Your task to perform on an android device: uninstall "PlayWell" Image 0: 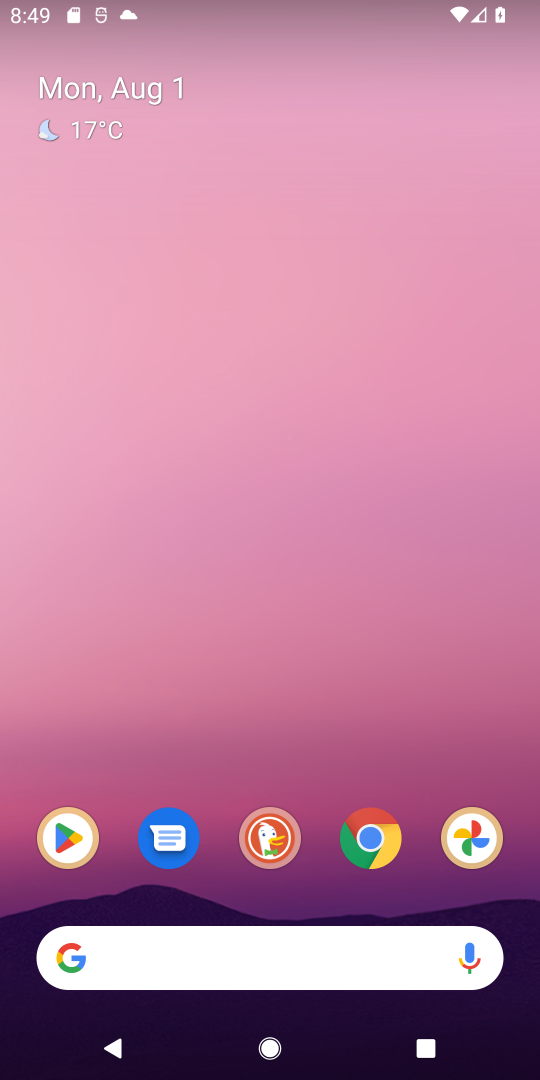
Step 0: press home button
Your task to perform on an android device: uninstall "PlayWell" Image 1: 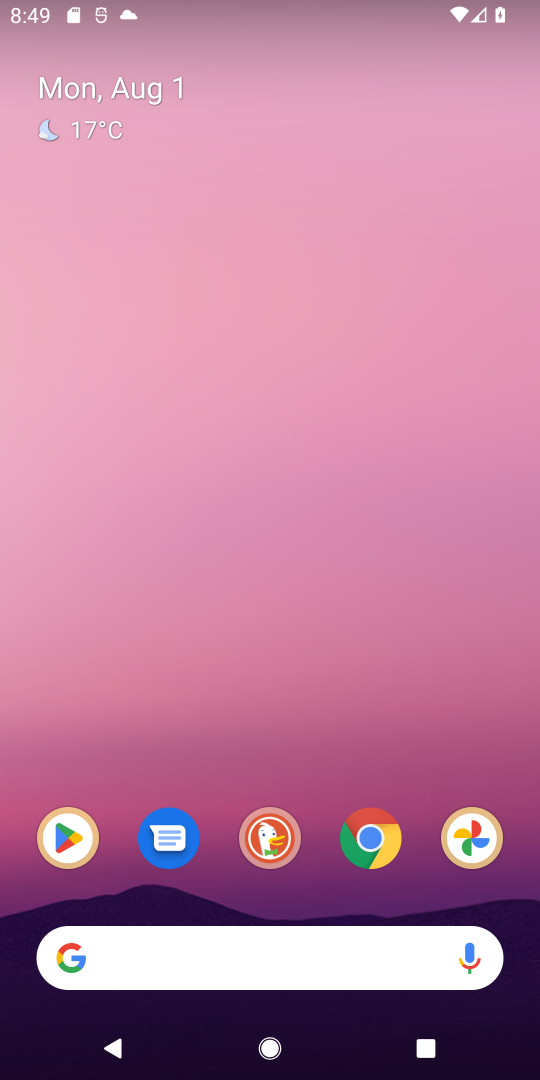
Step 1: click (62, 824)
Your task to perform on an android device: uninstall "PlayWell" Image 2: 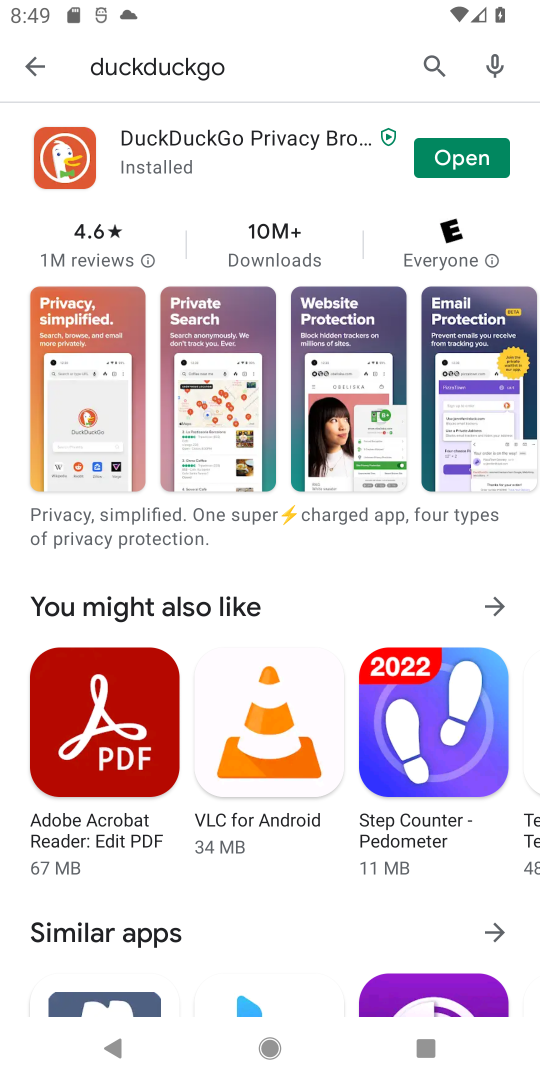
Step 2: click (428, 68)
Your task to perform on an android device: uninstall "PlayWell" Image 3: 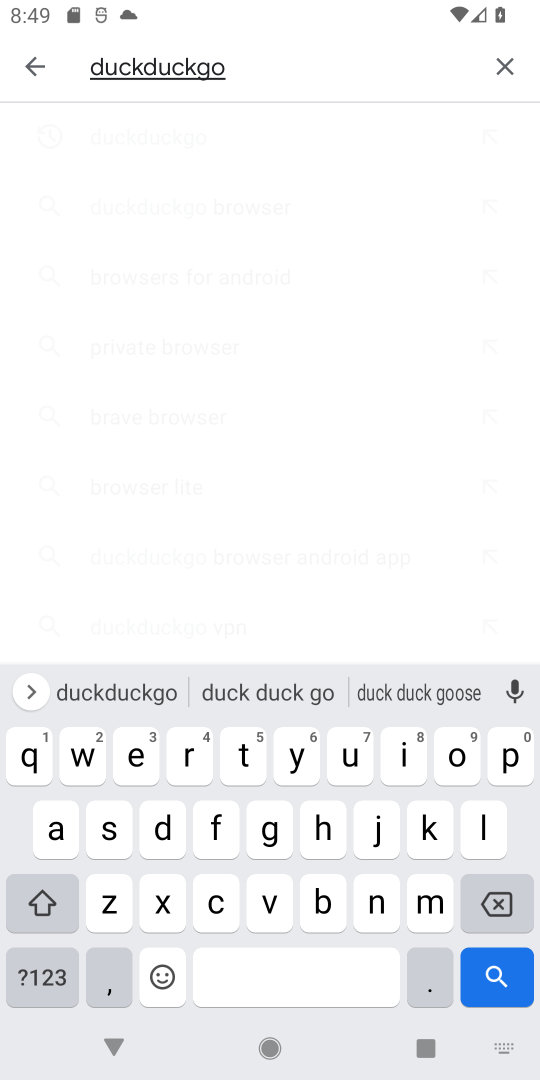
Step 3: click (503, 60)
Your task to perform on an android device: uninstall "PlayWell" Image 4: 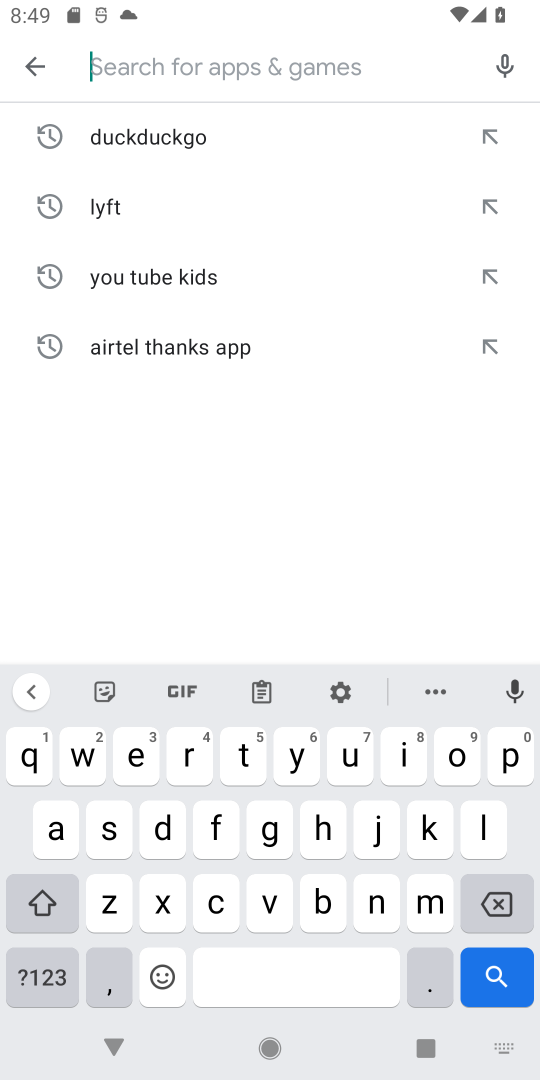
Step 4: click (499, 765)
Your task to perform on an android device: uninstall "PlayWell" Image 5: 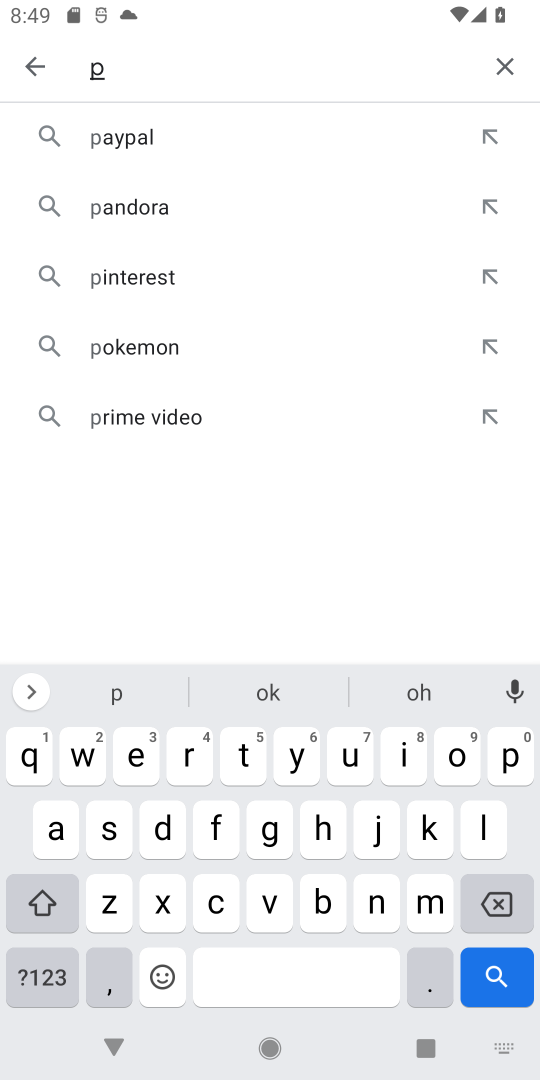
Step 5: click (471, 832)
Your task to perform on an android device: uninstall "PlayWell" Image 6: 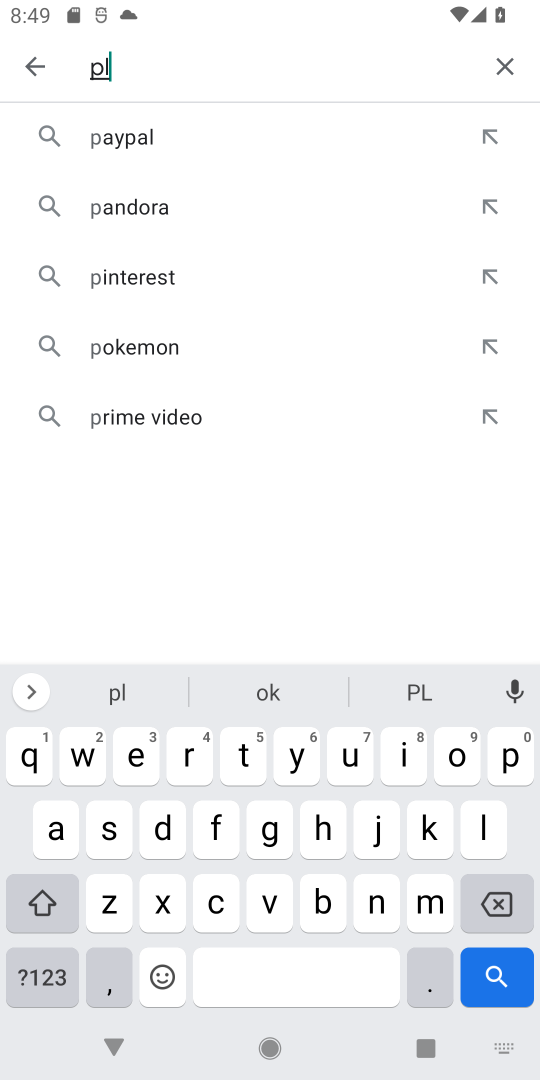
Step 6: click (55, 829)
Your task to perform on an android device: uninstall "PlayWell" Image 7: 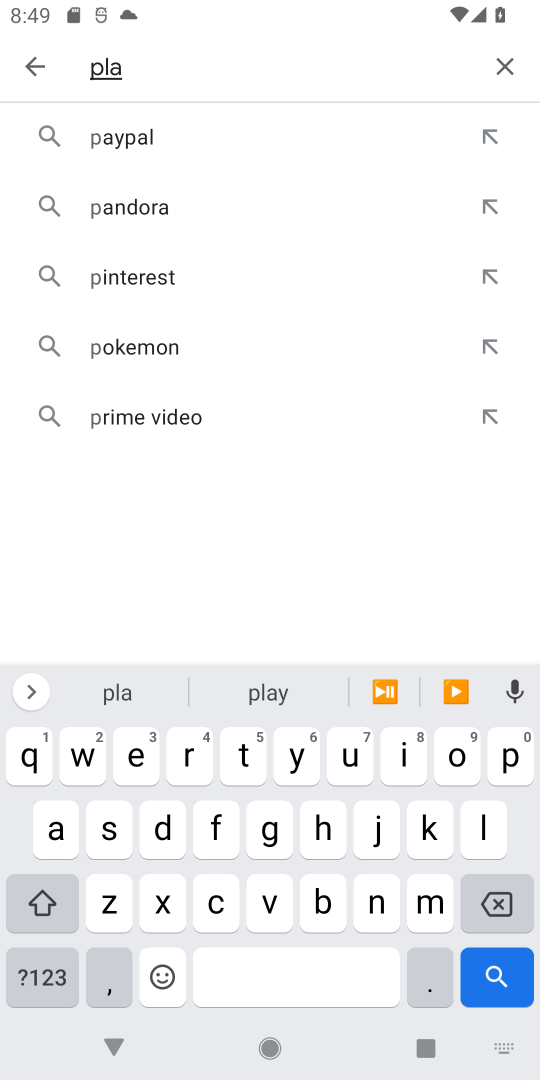
Step 7: click (294, 761)
Your task to perform on an android device: uninstall "PlayWell" Image 8: 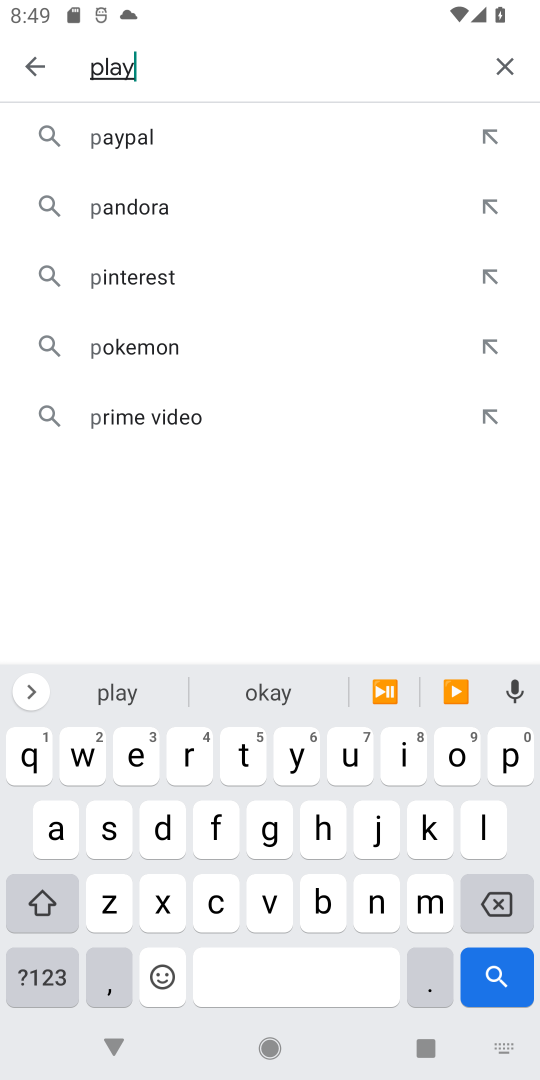
Step 8: click (78, 760)
Your task to perform on an android device: uninstall "PlayWell" Image 9: 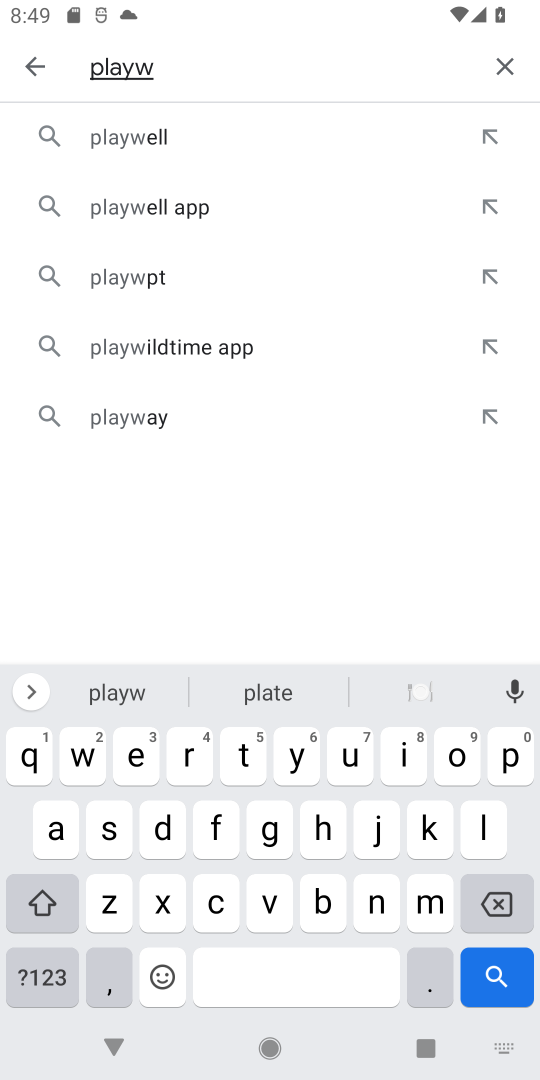
Step 9: click (157, 148)
Your task to perform on an android device: uninstall "PlayWell" Image 10: 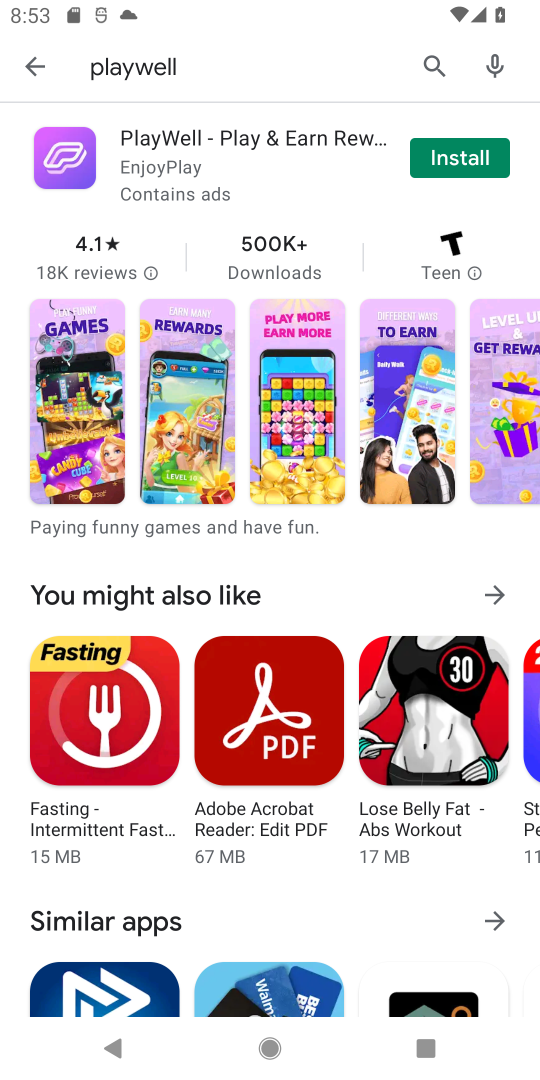
Step 10: task complete